Your task to perform on an android device: visit the assistant section in the google photos Image 0: 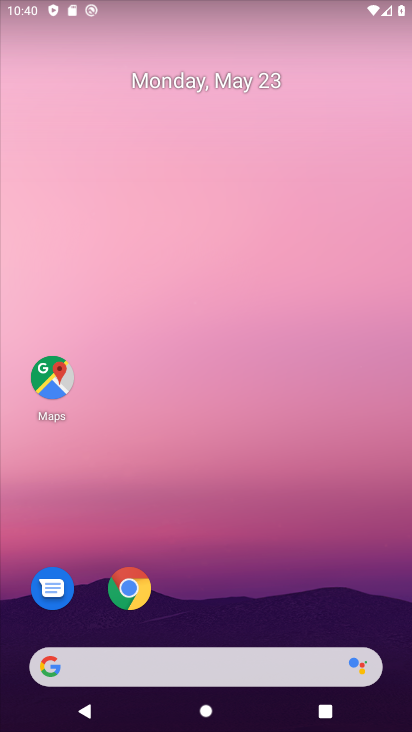
Step 0: drag from (318, 594) to (301, 91)
Your task to perform on an android device: visit the assistant section in the google photos Image 1: 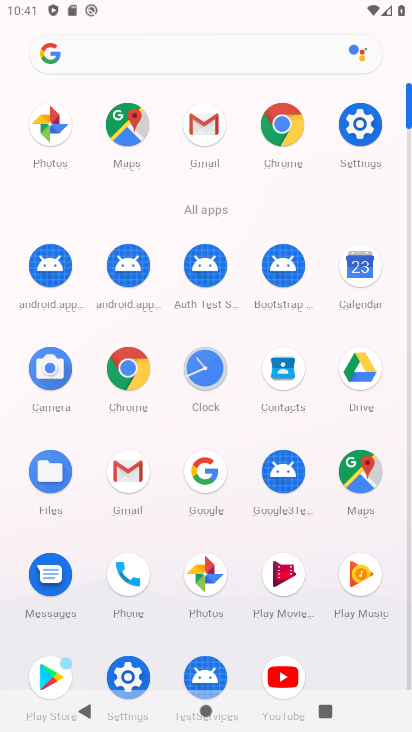
Step 1: click (215, 581)
Your task to perform on an android device: visit the assistant section in the google photos Image 2: 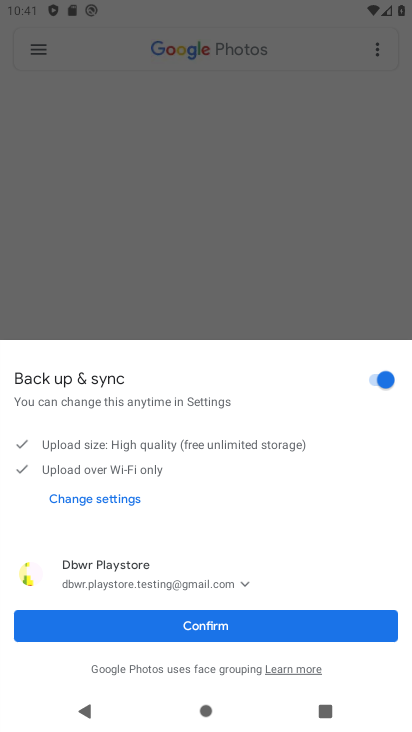
Step 2: click (208, 629)
Your task to perform on an android device: visit the assistant section in the google photos Image 3: 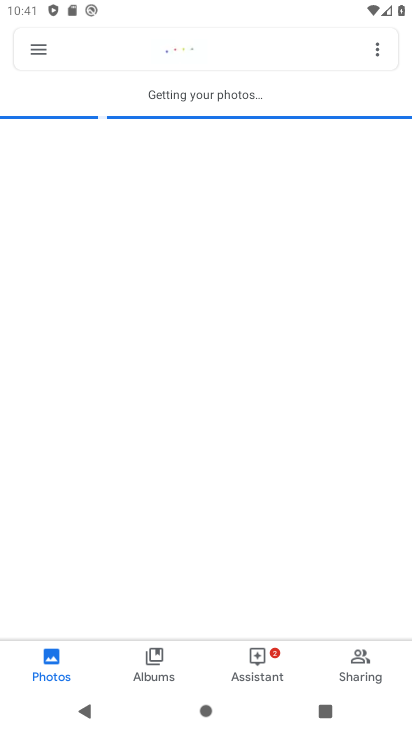
Step 3: click (271, 664)
Your task to perform on an android device: visit the assistant section in the google photos Image 4: 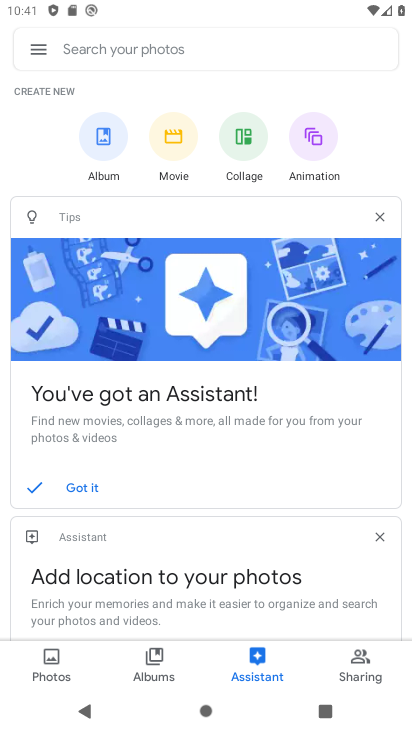
Step 4: task complete